Your task to perform on an android device: Go to Maps Image 0: 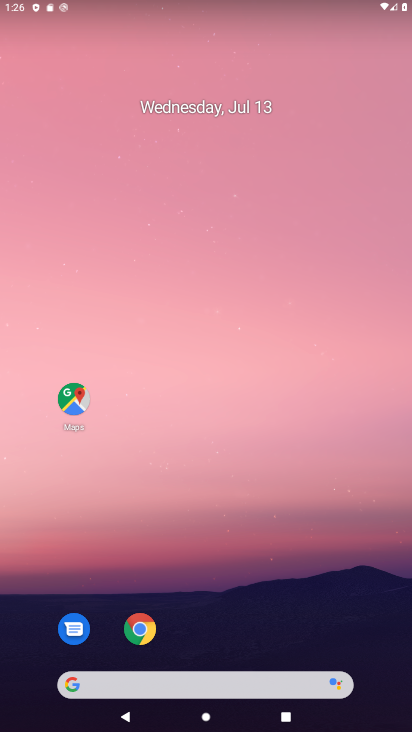
Step 0: drag from (311, 629) to (248, 13)
Your task to perform on an android device: Go to Maps Image 1: 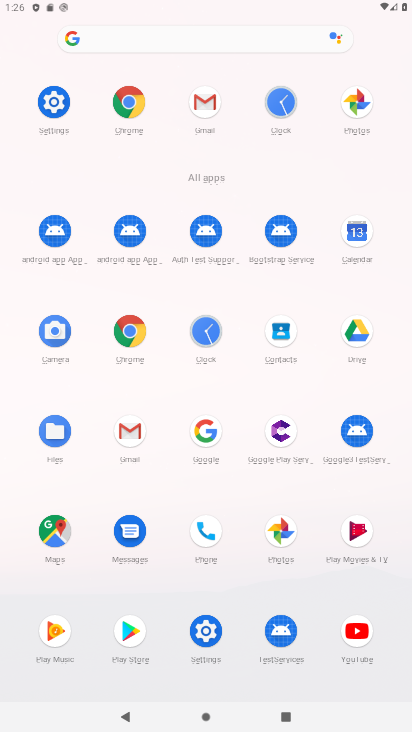
Step 1: click (43, 543)
Your task to perform on an android device: Go to Maps Image 2: 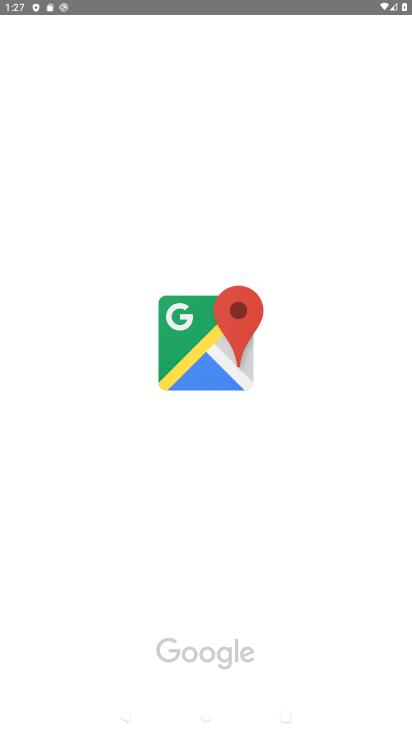
Step 2: task complete